Your task to perform on an android device: What's the weather going to be tomorrow? Image 0: 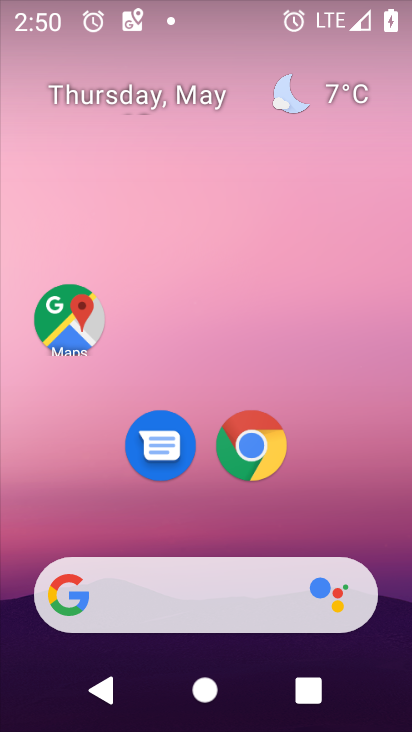
Step 0: click (339, 99)
Your task to perform on an android device: What's the weather going to be tomorrow? Image 1: 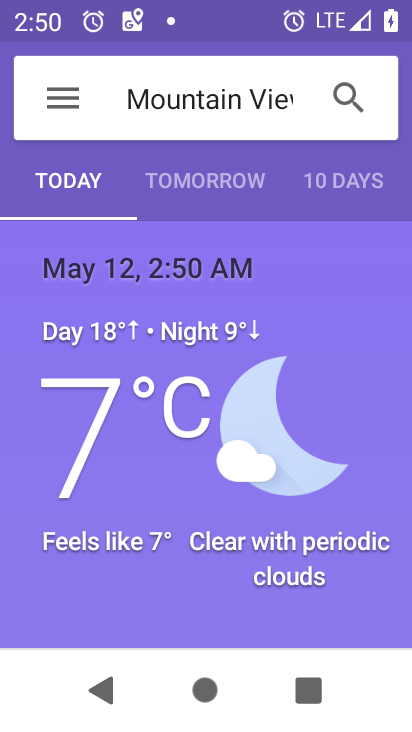
Step 1: click (200, 189)
Your task to perform on an android device: What's the weather going to be tomorrow? Image 2: 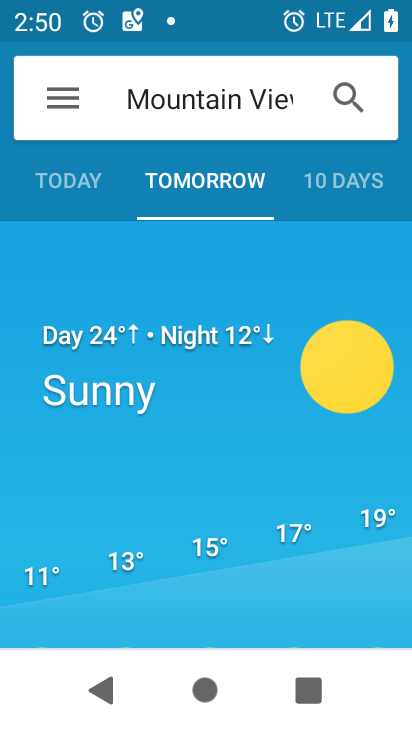
Step 2: task complete